Your task to perform on an android device: Open the phone app and click the voicemail tab. Image 0: 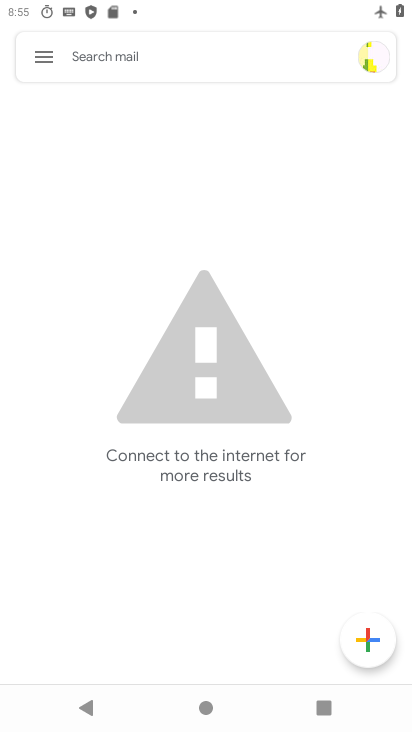
Step 0: press home button
Your task to perform on an android device: Open the phone app and click the voicemail tab. Image 1: 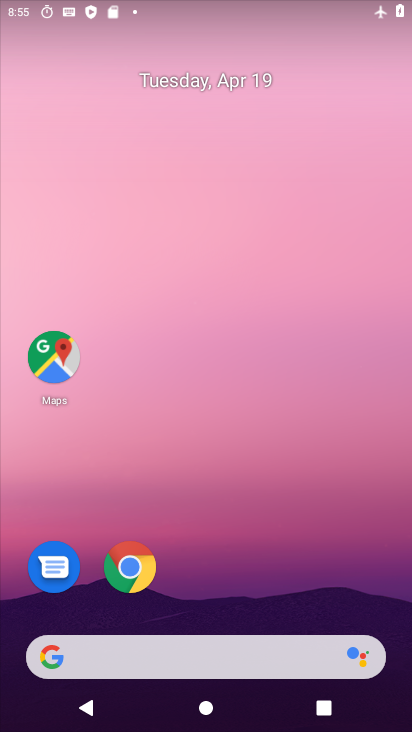
Step 1: drag from (192, 497) to (175, 72)
Your task to perform on an android device: Open the phone app and click the voicemail tab. Image 2: 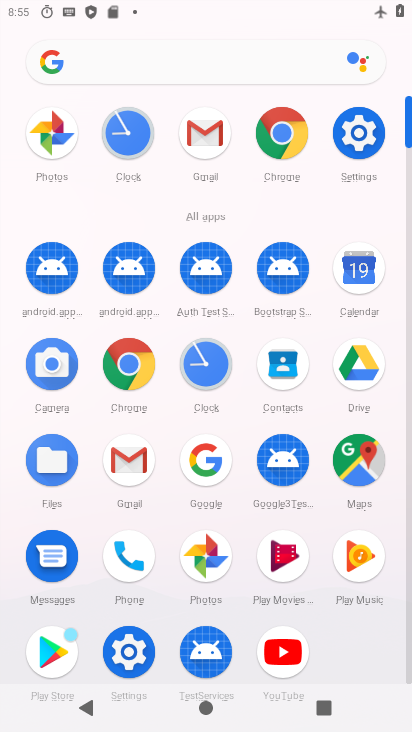
Step 2: click (123, 566)
Your task to perform on an android device: Open the phone app and click the voicemail tab. Image 3: 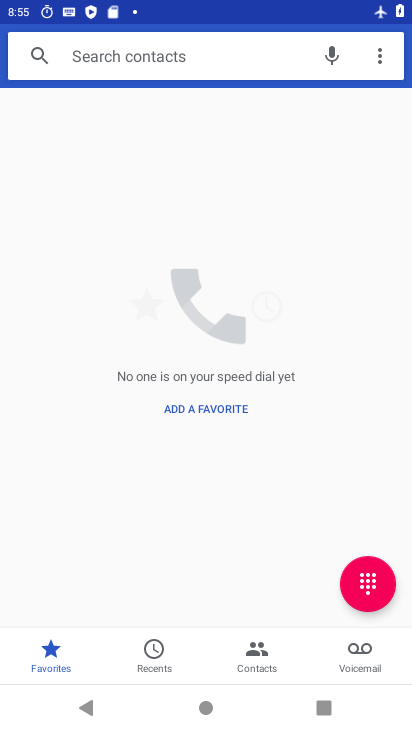
Step 3: click (360, 648)
Your task to perform on an android device: Open the phone app and click the voicemail tab. Image 4: 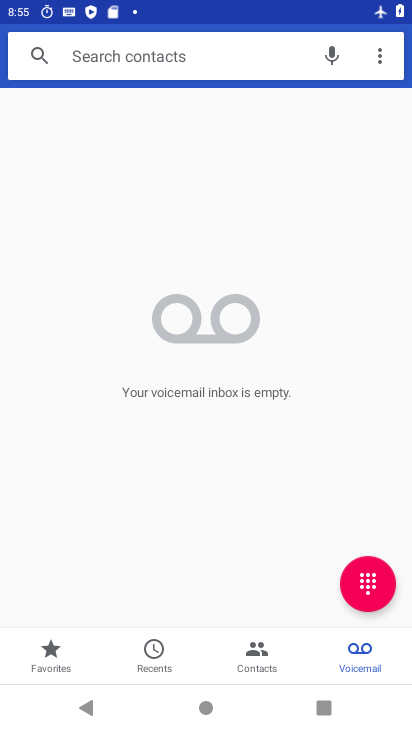
Step 4: task complete